Your task to perform on an android device: find snoozed emails in the gmail app Image 0: 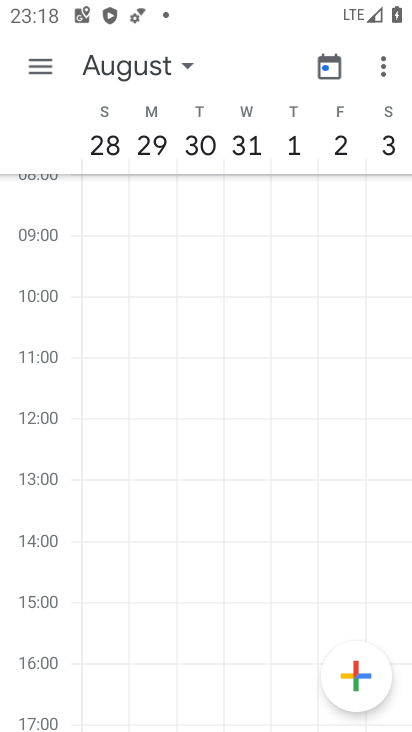
Step 0: press home button
Your task to perform on an android device: find snoozed emails in the gmail app Image 1: 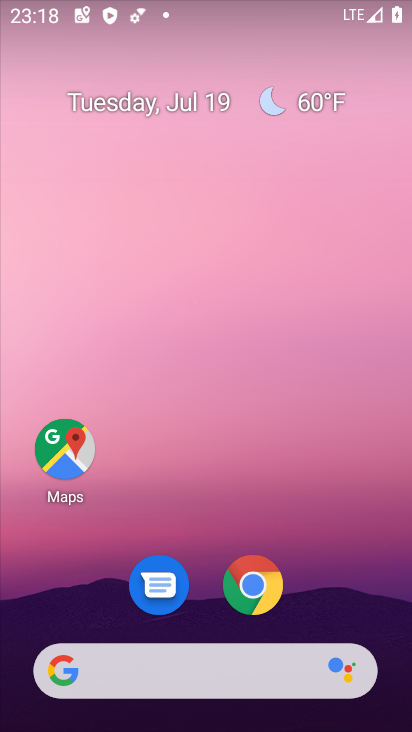
Step 1: drag from (211, 526) to (231, 18)
Your task to perform on an android device: find snoozed emails in the gmail app Image 2: 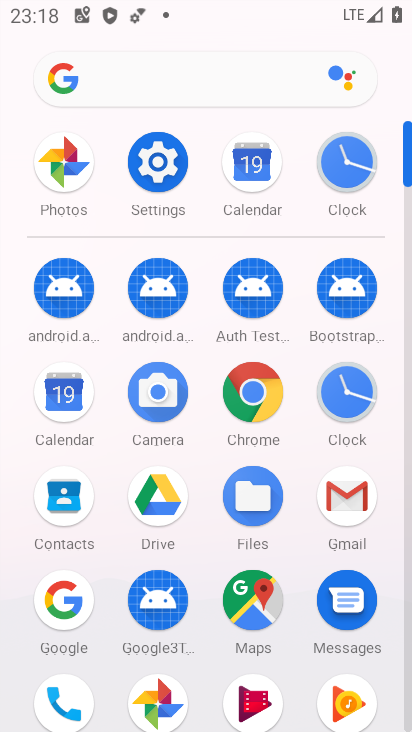
Step 2: click (353, 500)
Your task to perform on an android device: find snoozed emails in the gmail app Image 3: 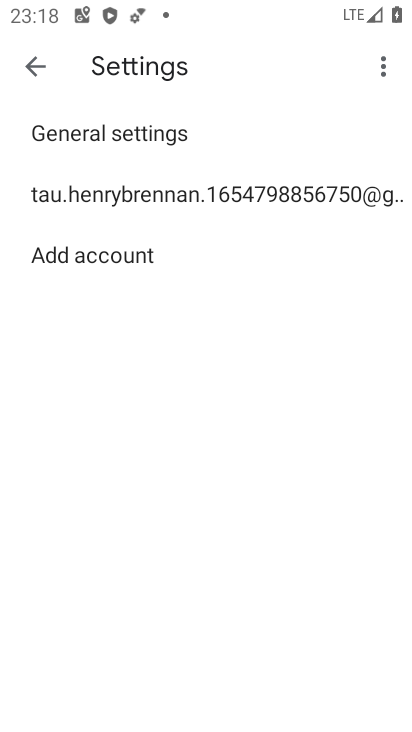
Step 3: click (37, 69)
Your task to perform on an android device: find snoozed emails in the gmail app Image 4: 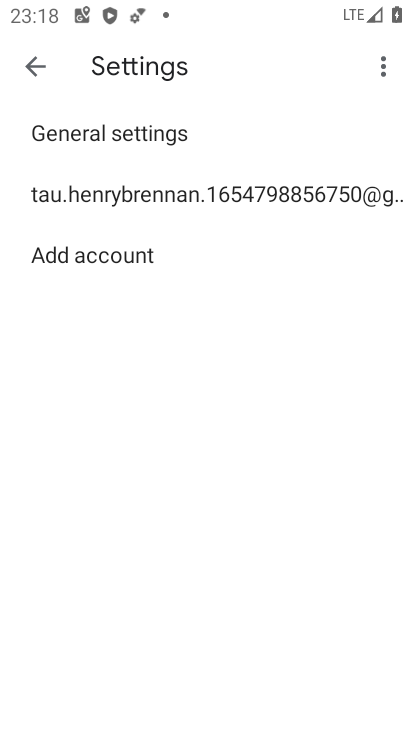
Step 4: click (38, 61)
Your task to perform on an android device: find snoozed emails in the gmail app Image 5: 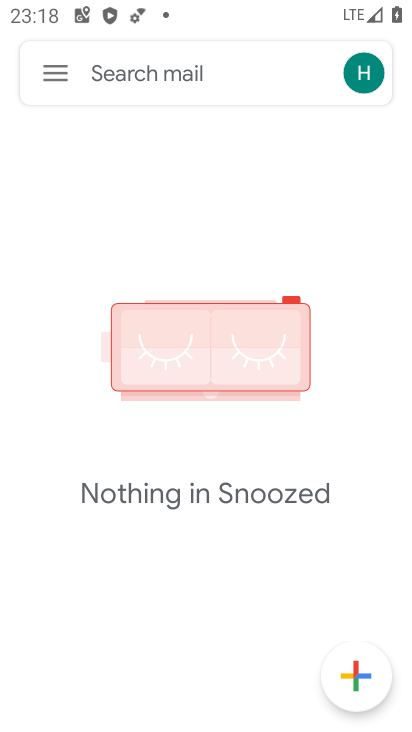
Step 5: click (55, 67)
Your task to perform on an android device: find snoozed emails in the gmail app Image 6: 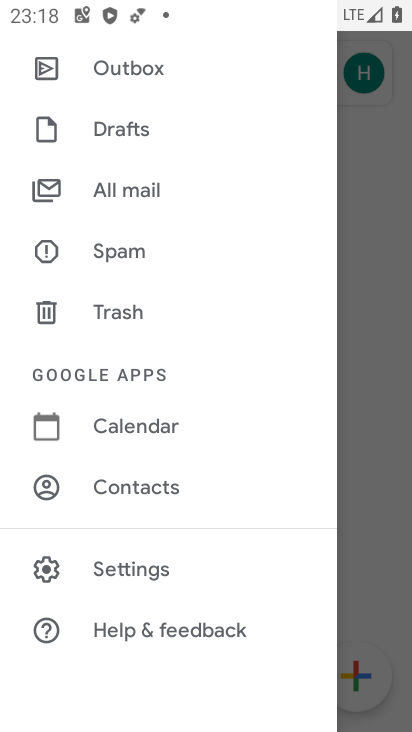
Step 6: drag from (193, 125) to (243, 571)
Your task to perform on an android device: find snoozed emails in the gmail app Image 7: 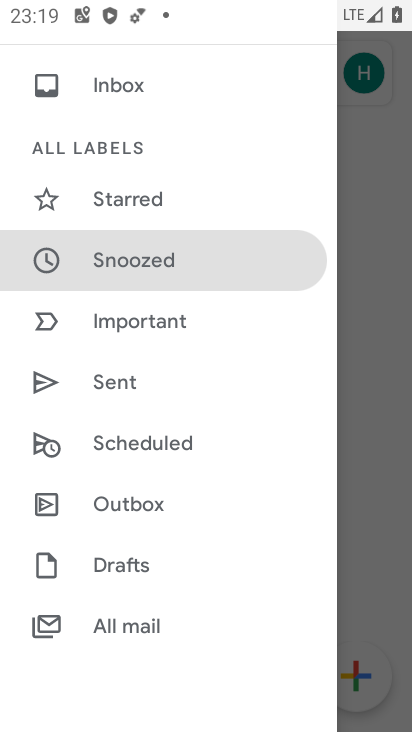
Step 7: click (184, 259)
Your task to perform on an android device: find snoozed emails in the gmail app Image 8: 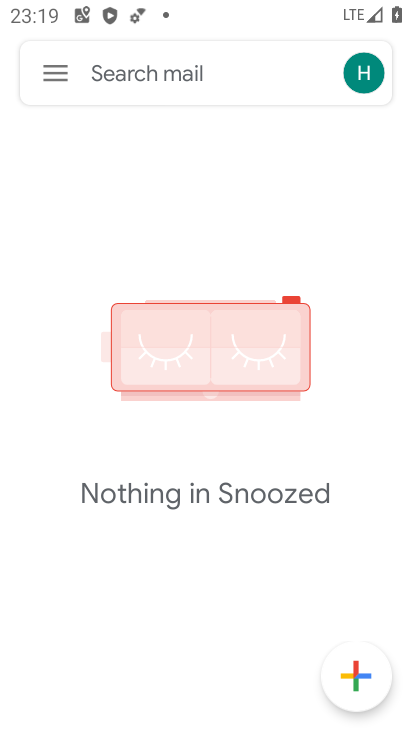
Step 8: task complete